Your task to perform on an android device: Open Youtube and go to "Your channel" Image 0: 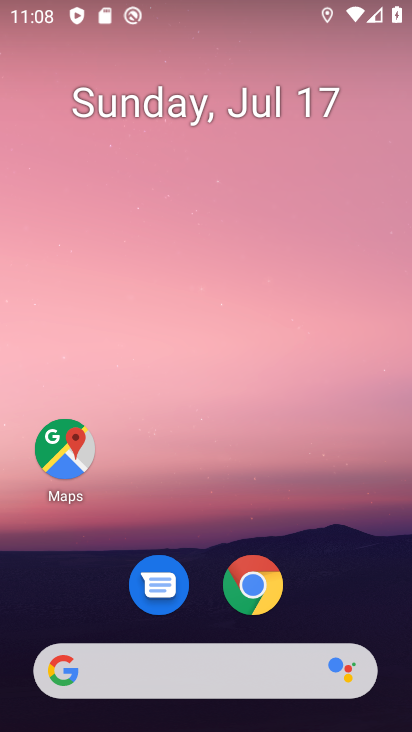
Step 0: drag from (199, 468) to (208, 6)
Your task to perform on an android device: Open Youtube and go to "Your channel" Image 1: 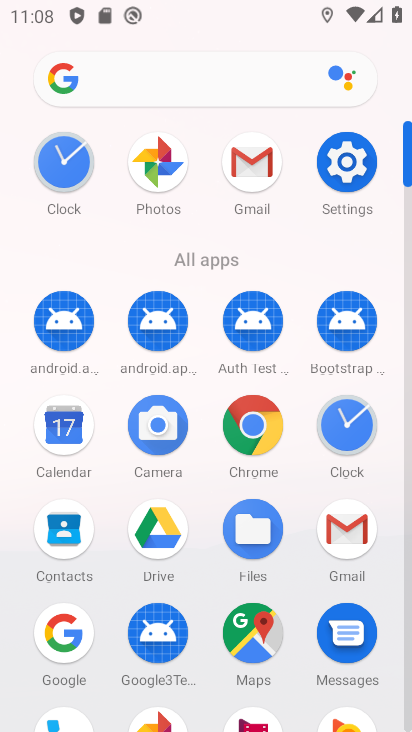
Step 1: drag from (208, 527) to (223, 134)
Your task to perform on an android device: Open Youtube and go to "Your channel" Image 2: 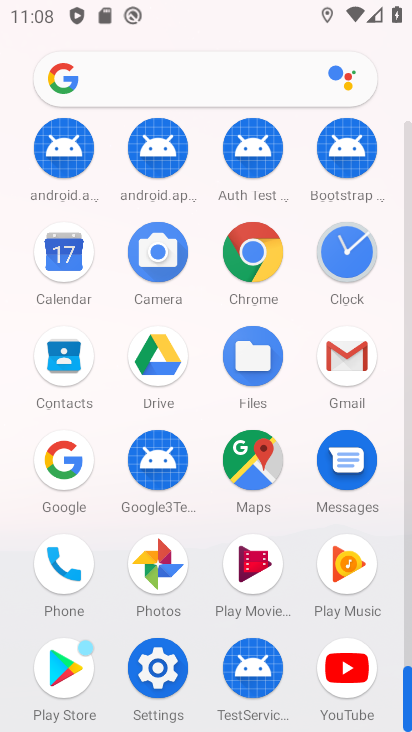
Step 2: click (343, 671)
Your task to perform on an android device: Open Youtube and go to "Your channel" Image 3: 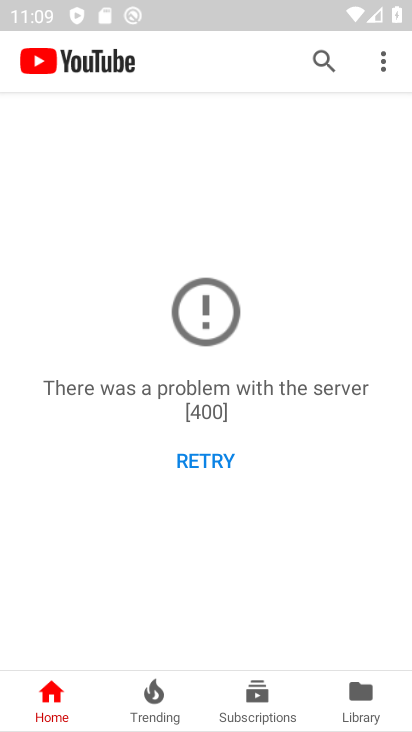
Step 3: click (381, 59)
Your task to perform on an android device: Open Youtube and go to "Your channel" Image 4: 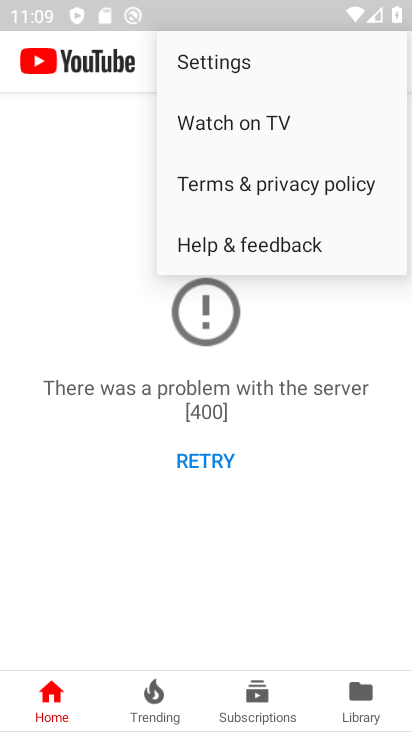
Step 4: click (259, 590)
Your task to perform on an android device: Open Youtube and go to "Your channel" Image 5: 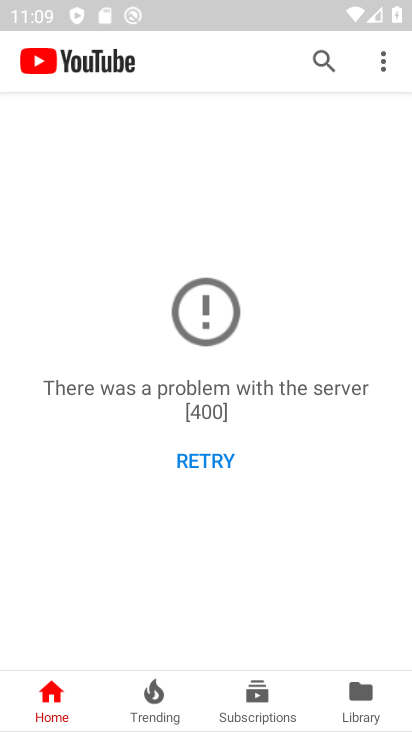
Step 5: click (380, 59)
Your task to perform on an android device: Open Youtube and go to "Your channel" Image 6: 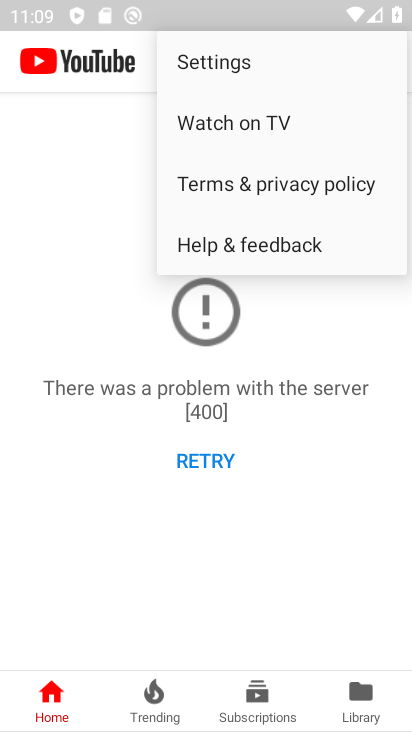
Step 6: click (296, 60)
Your task to perform on an android device: Open Youtube and go to "Your channel" Image 7: 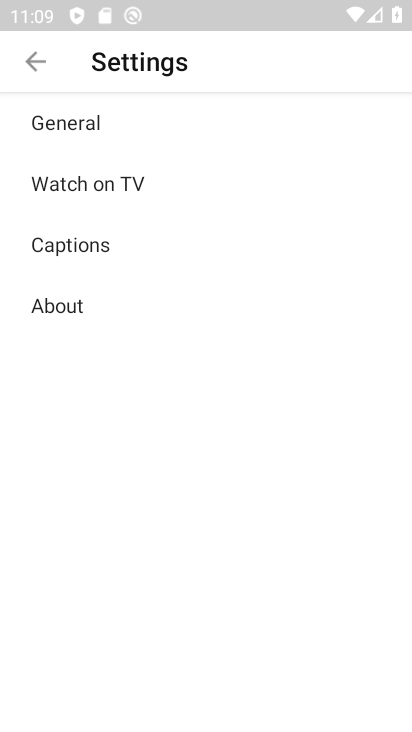
Step 7: click (29, 49)
Your task to perform on an android device: Open Youtube and go to "Your channel" Image 8: 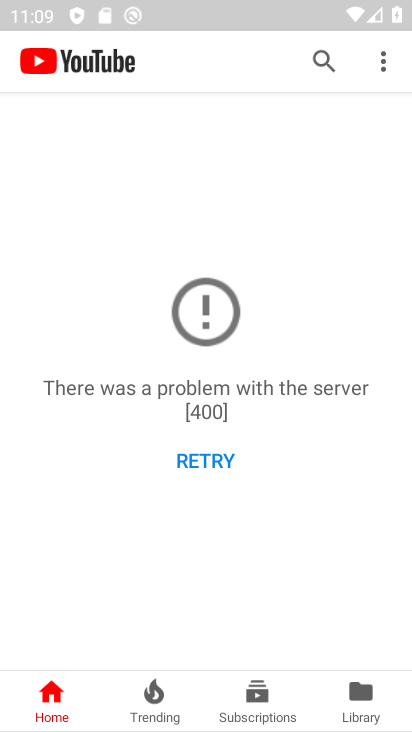
Step 8: click (359, 706)
Your task to perform on an android device: Open Youtube and go to "Your channel" Image 9: 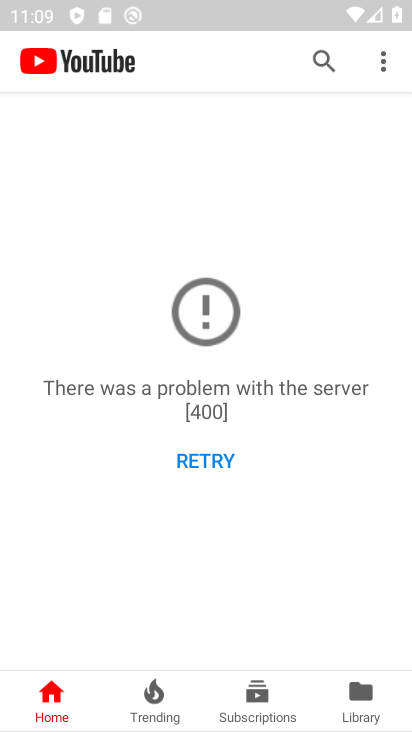
Step 9: click (359, 697)
Your task to perform on an android device: Open Youtube and go to "Your channel" Image 10: 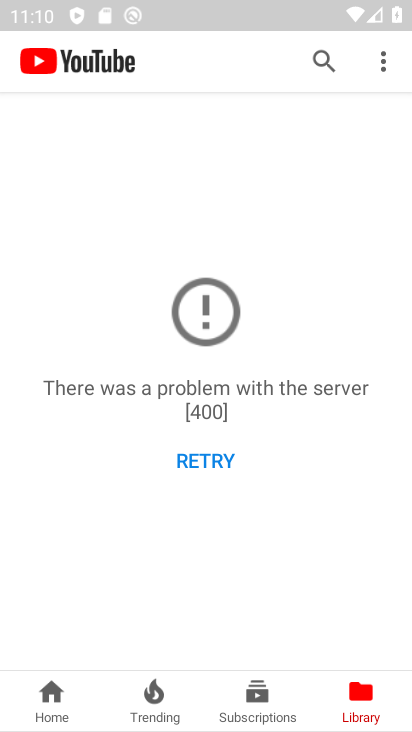
Step 10: task complete